Your task to perform on an android device: Empty the shopping cart on amazon.com. Search for "lg ultragear" on amazon.com, select the first entry, add it to the cart, then select checkout. Image 0: 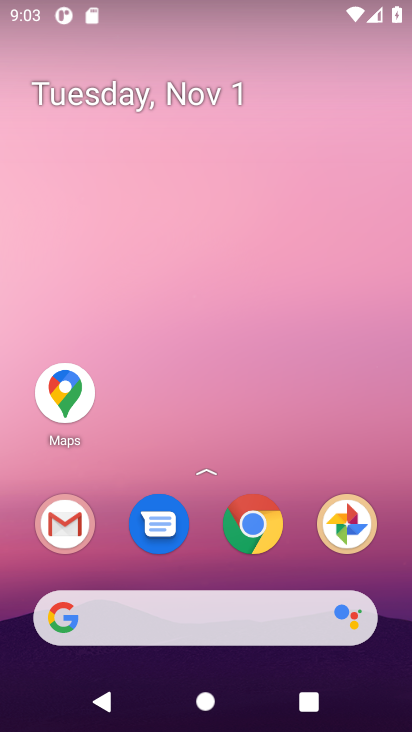
Step 0: press home button
Your task to perform on an android device: Empty the shopping cart on amazon.com. Search for "lg ultragear" on amazon.com, select the first entry, add it to the cart, then select checkout. Image 1: 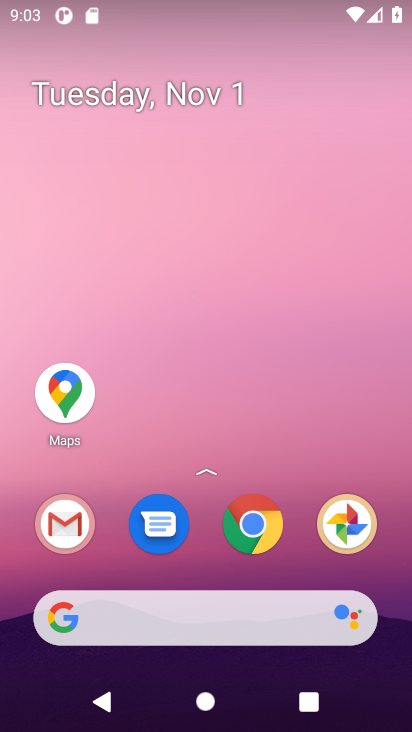
Step 1: click (96, 609)
Your task to perform on an android device: Empty the shopping cart on amazon.com. Search for "lg ultragear" on amazon.com, select the first entry, add it to the cart, then select checkout. Image 2: 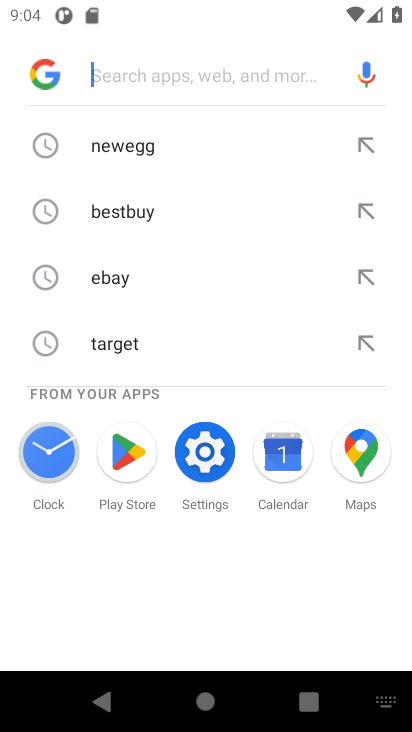
Step 2: type "amazon.com"
Your task to perform on an android device: Empty the shopping cart on amazon.com. Search for "lg ultragear" on amazon.com, select the first entry, add it to the cart, then select checkout. Image 3: 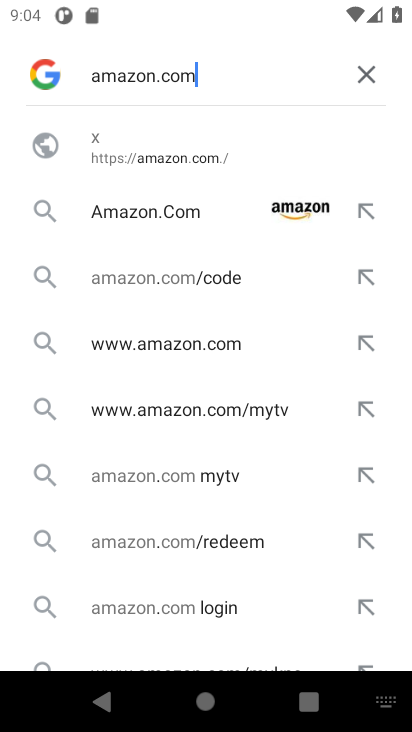
Step 3: press enter
Your task to perform on an android device: Empty the shopping cart on amazon.com. Search for "lg ultragear" on amazon.com, select the first entry, add it to the cart, then select checkout. Image 4: 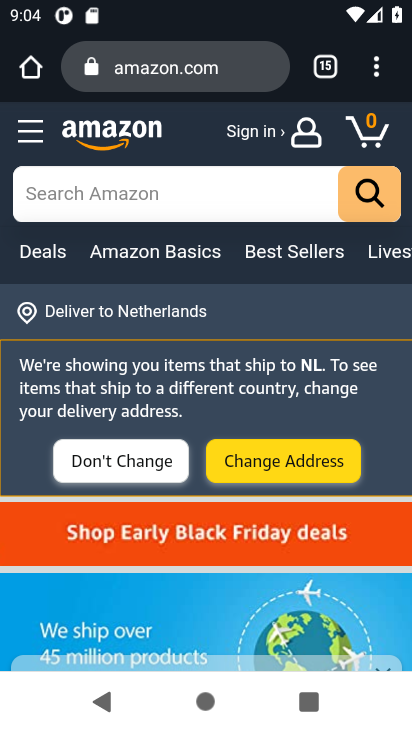
Step 4: click (368, 134)
Your task to perform on an android device: Empty the shopping cart on amazon.com. Search for "lg ultragear" on amazon.com, select the first entry, add it to the cart, then select checkout. Image 5: 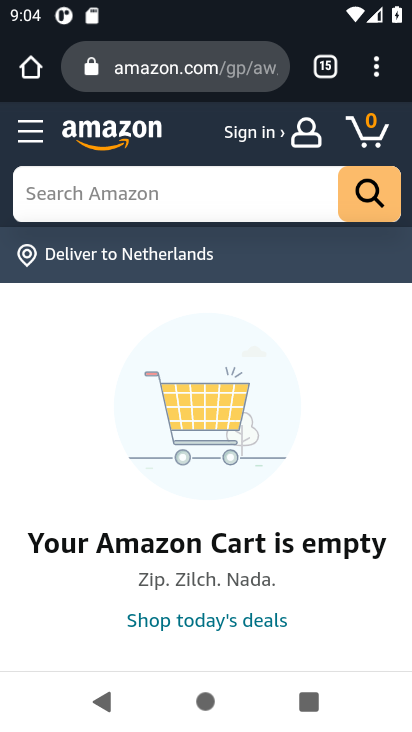
Step 5: click (50, 187)
Your task to perform on an android device: Empty the shopping cart on amazon.com. Search for "lg ultragear" on amazon.com, select the first entry, add it to the cart, then select checkout. Image 6: 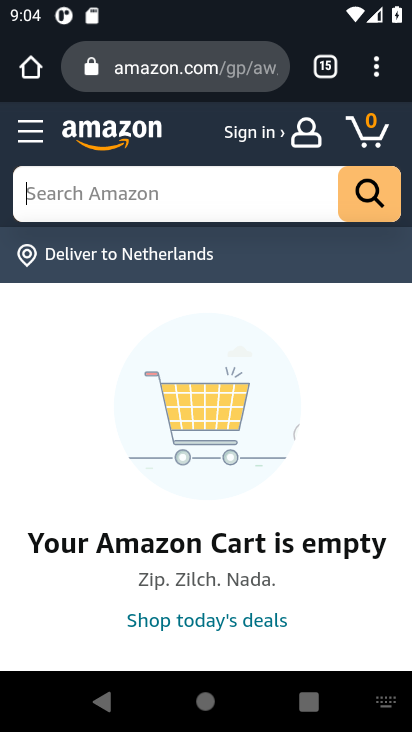
Step 6: type "lg ultragear"
Your task to perform on an android device: Empty the shopping cart on amazon.com. Search for "lg ultragear" on amazon.com, select the first entry, add it to the cart, then select checkout. Image 7: 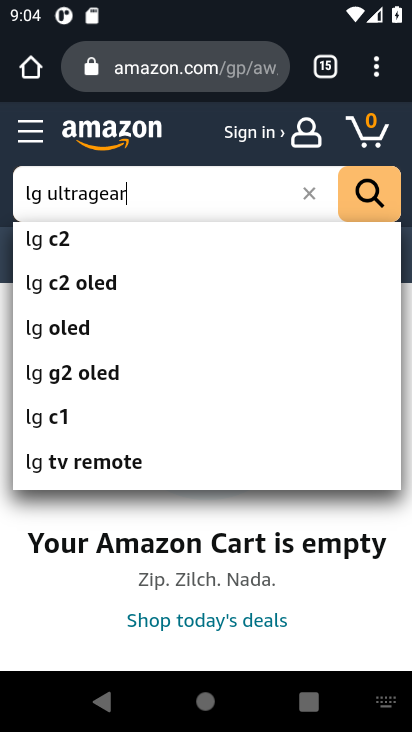
Step 7: press enter
Your task to perform on an android device: Empty the shopping cart on amazon.com. Search for "lg ultragear" on amazon.com, select the first entry, add it to the cart, then select checkout. Image 8: 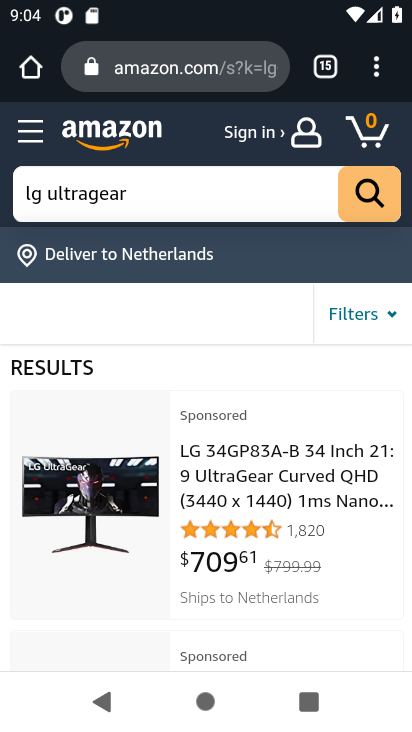
Step 8: drag from (288, 600) to (287, 406)
Your task to perform on an android device: Empty the shopping cart on amazon.com. Search for "lg ultragear" on amazon.com, select the first entry, add it to the cart, then select checkout. Image 9: 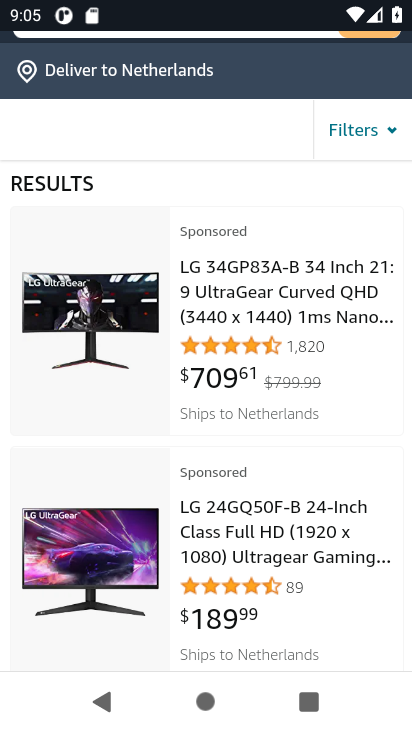
Step 9: click (247, 292)
Your task to perform on an android device: Empty the shopping cart on amazon.com. Search for "lg ultragear" on amazon.com, select the first entry, add it to the cart, then select checkout. Image 10: 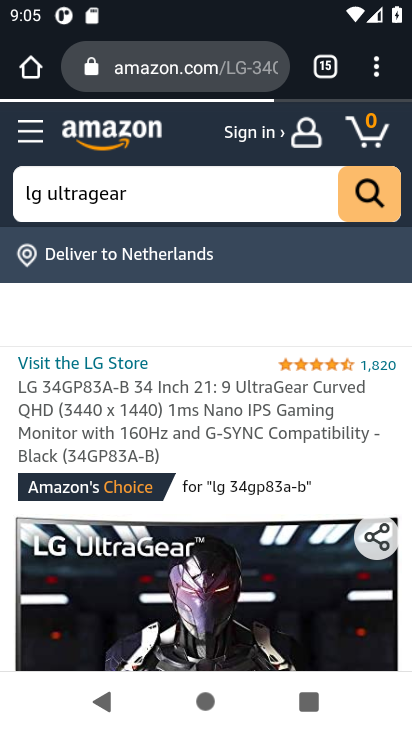
Step 10: drag from (208, 598) to (232, 380)
Your task to perform on an android device: Empty the shopping cart on amazon.com. Search for "lg ultragear" on amazon.com, select the first entry, add it to the cart, then select checkout. Image 11: 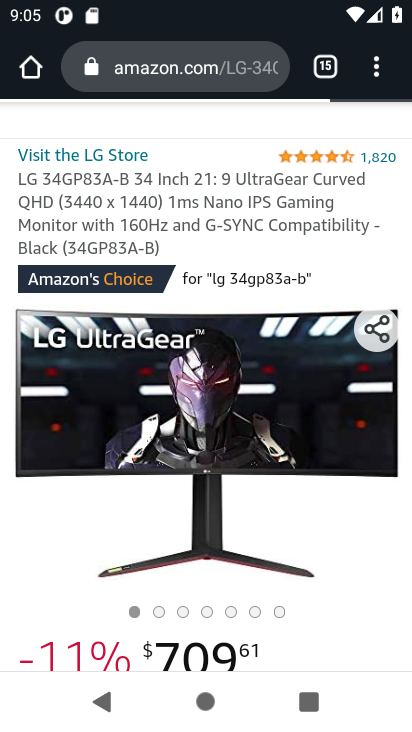
Step 11: drag from (219, 570) to (224, 253)
Your task to perform on an android device: Empty the shopping cart on amazon.com. Search for "lg ultragear" on amazon.com, select the first entry, add it to the cart, then select checkout. Image 12: 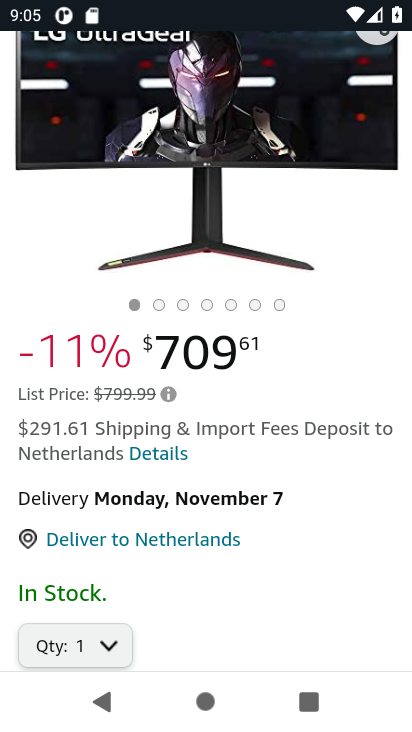
Step 12: drag from (214, 552) to (256, 245)
Your task to perform on an android device: Empty the shopping cart on amazon.com. Search for "lg ultragear" on amazon.com, select the first entry, add it to the cart, then select checkout. Image 13: 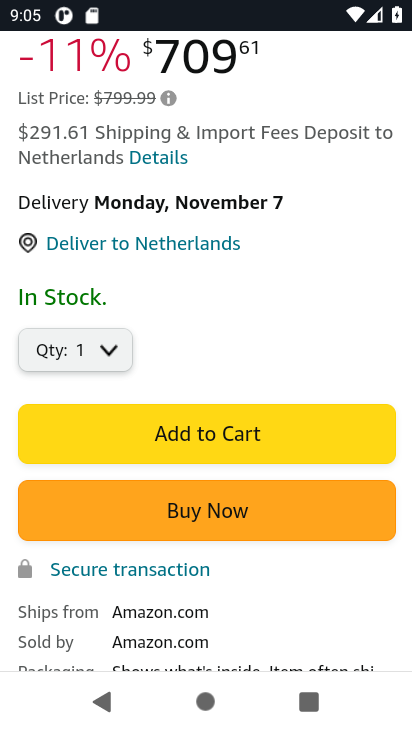
Step 13: click (190, 432)
Your task to perform on an android device: Empty the shopping cart on amazon.com. Search for "lg ultragear" on amazon.com, select the first entry, add it to the cart, then select checkout. Image 14: 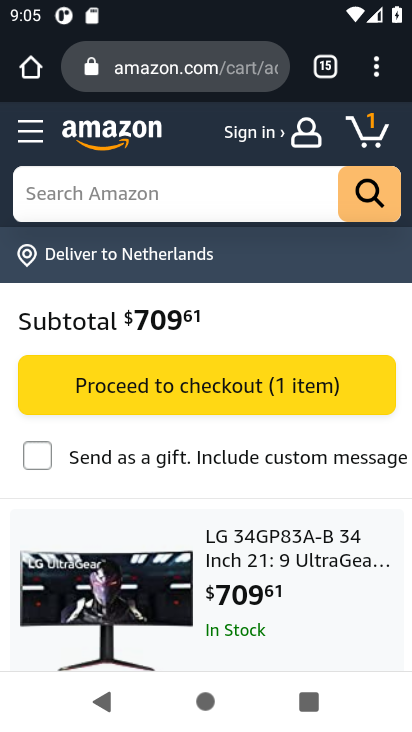
Step 14: click (250, 392)
Your task to perform on an android device: Empty the shopping cart on amazon.com. Search for "lg ultragear" on amazon.com, select the first entry, add it to the cart, then select checkout. Image 15: 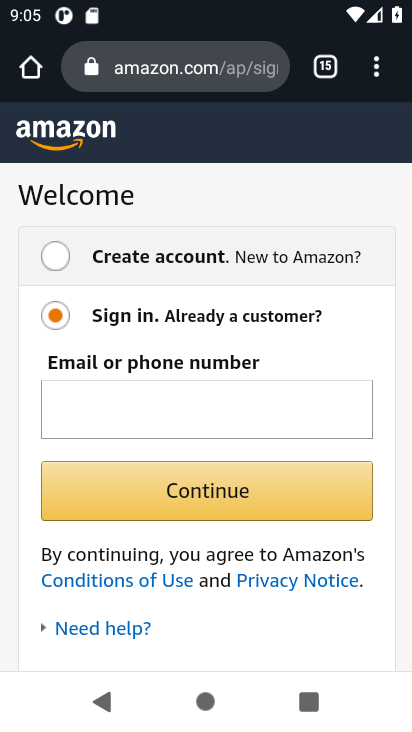
Step 15: task complete